Your task to perform on an android device: turn off smart reply in the gmail app Image 0: 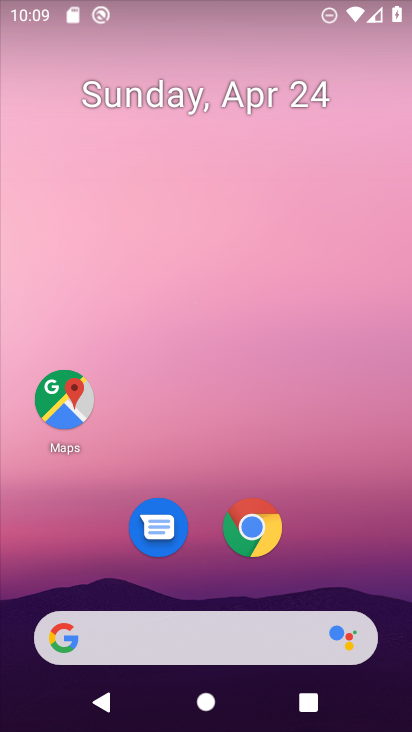
Step 0: drag from (387, 615) to (288, 68)
Your task to perform on an android device: turn off smart reply in the gmail app Image 1: 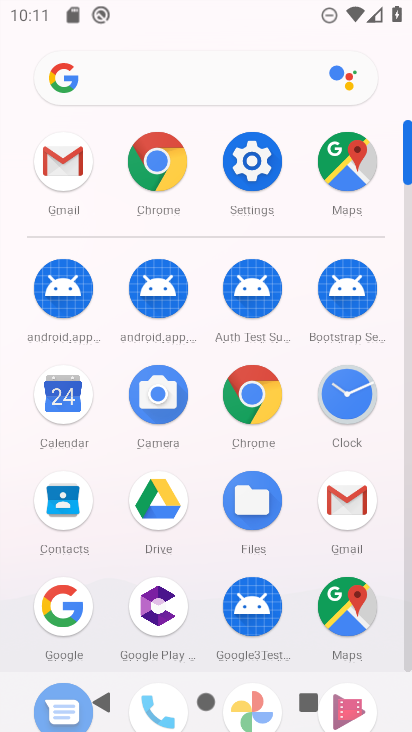
Step 1: click (339, 498)
Your task to perform on an android device: turn off smart reply in the gmail app Image 2: 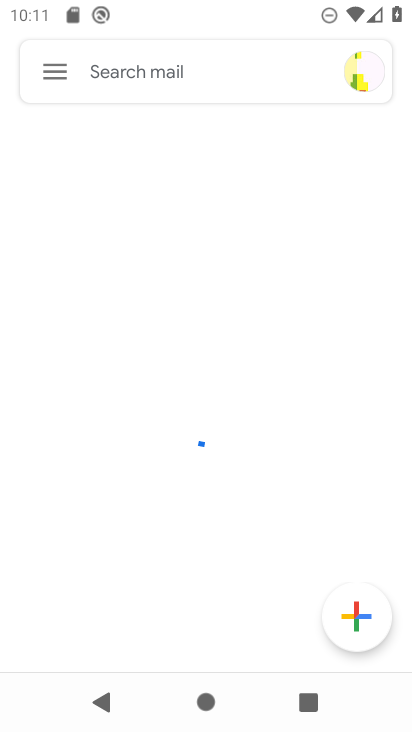
Step 2: click (51, 76)
Your task to perform on an android device: turn off smart reply in the gmail app Image 3: 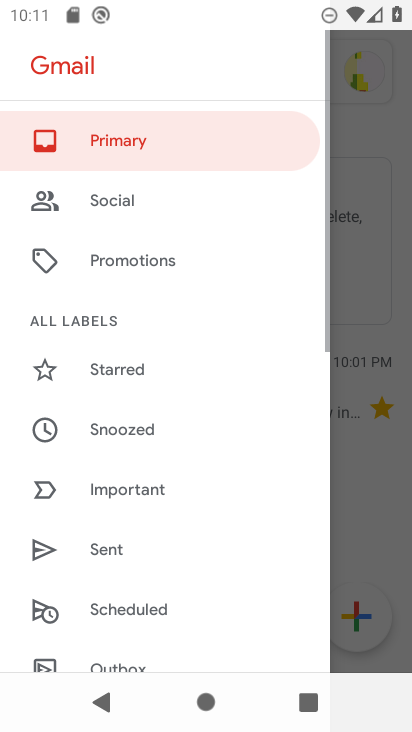
Step 3: drag from (110, 661) to (162, 79)
Your task to perform on an android device: turn off smart reply in the gmail app Image 4: 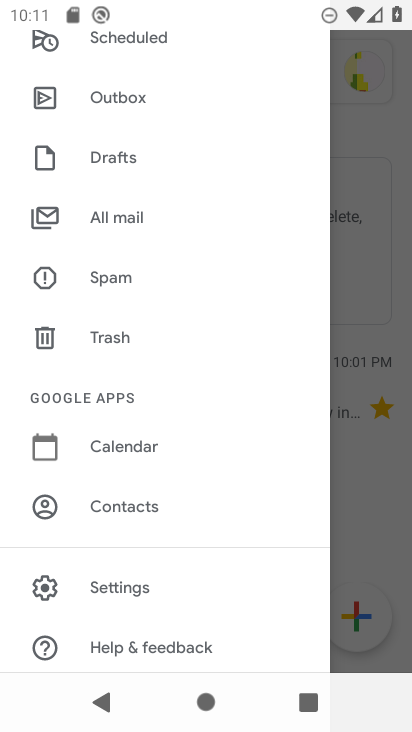
Step 4: click (141, 577)
Your task to perform on an android device: turn off smart reply in the gmail app Image 5: 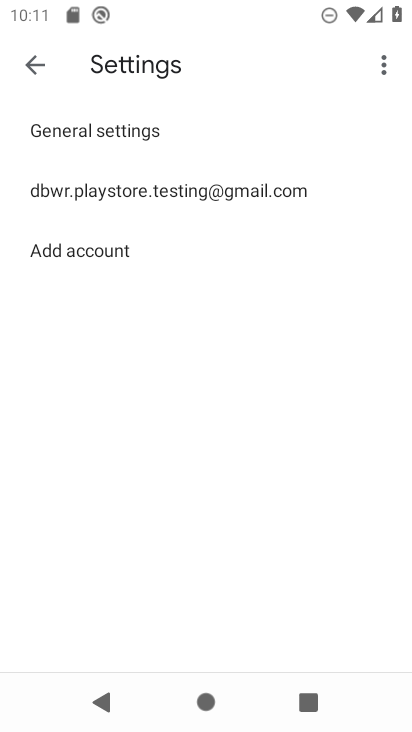
Step 5: drag from (128, 623) to (181, 448)
Your task to perform on an android device: turn off smart reply in the gmail app Image 6: 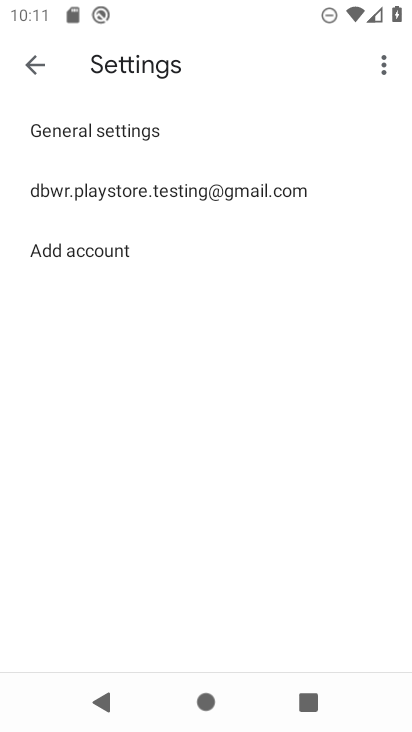
Step 6: click (217, 196)
Your task to perform on an android device: turn off smart reply in the gmail app Image 7: 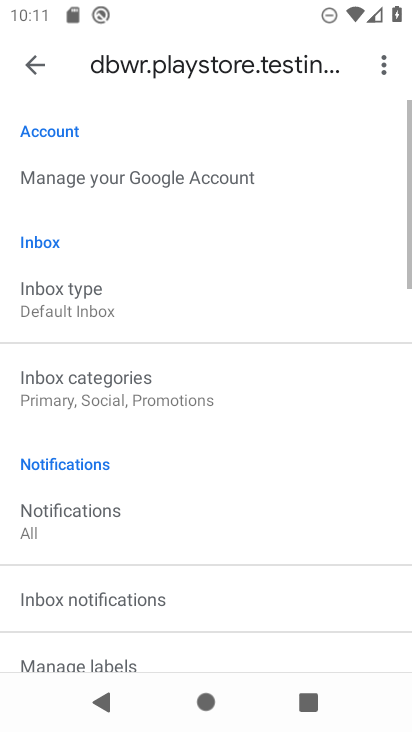
Step 7: task complete